Your task to perform on an android device: toggle pop-ups in chrome Image 0: 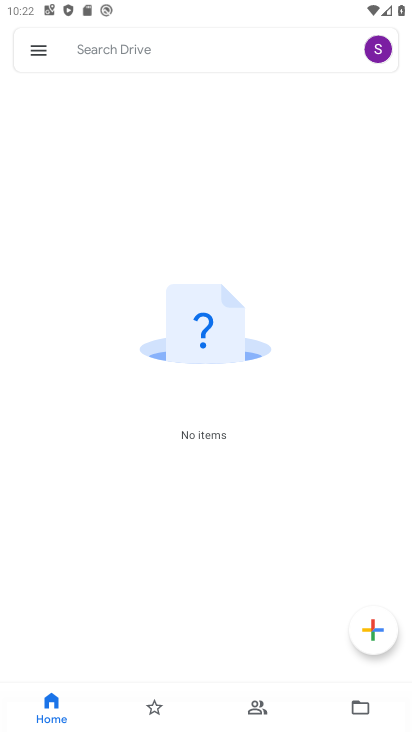
Step 0: press home button
Your task to perform on an android device: toggle pop-ups in chrome Image 1: 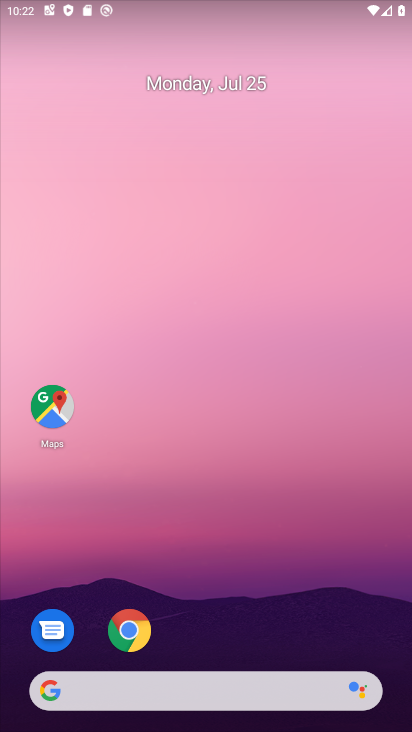
Step 1: drag from (336, 619) to (327, 240)
Your task to perform on an android device: toggle pop-ups in chrome Image 2: 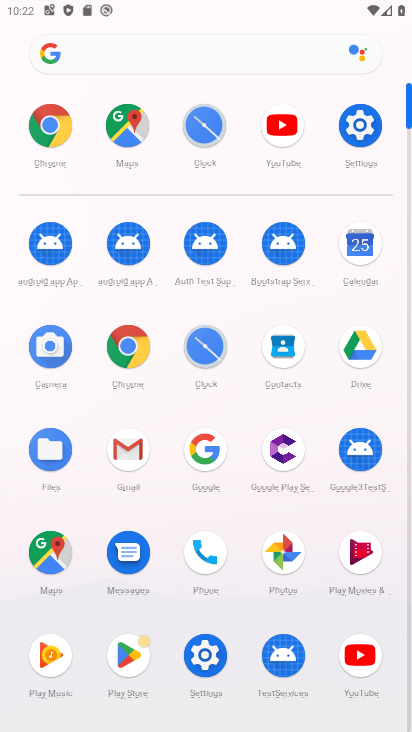
Step 2: click (136, 345)
Your task to perform on an android device: toggle pop-ups in chrome Image 3: 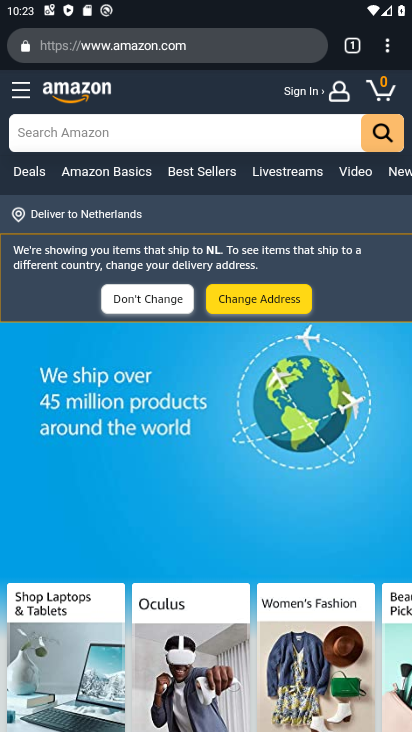
Step 3: click (387, 51)
Your task to perform on an android device: toggle pop-ups in chrome Image 4: 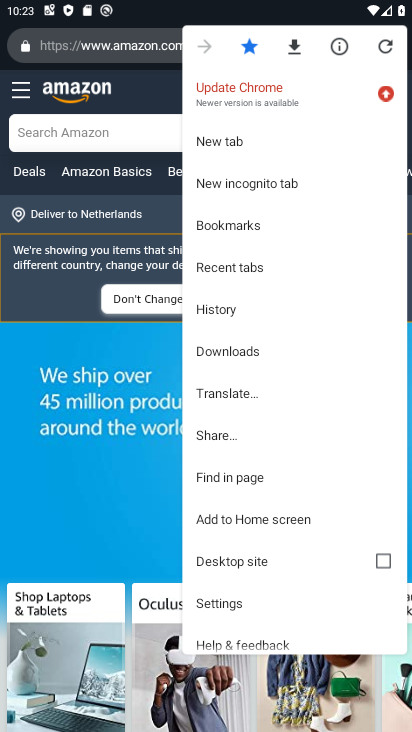
Step 4: drag from (340, 348) to (340, 274)
Your task to perform on an android device: toggle pop-ups in chrome Image 5: 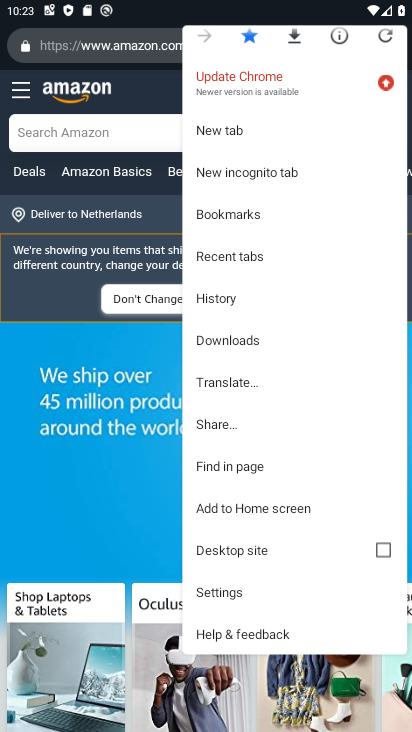
Step 5: click (277, 588)
Your task to perform on an android device: toggle pop-ups in chrome Image 6: 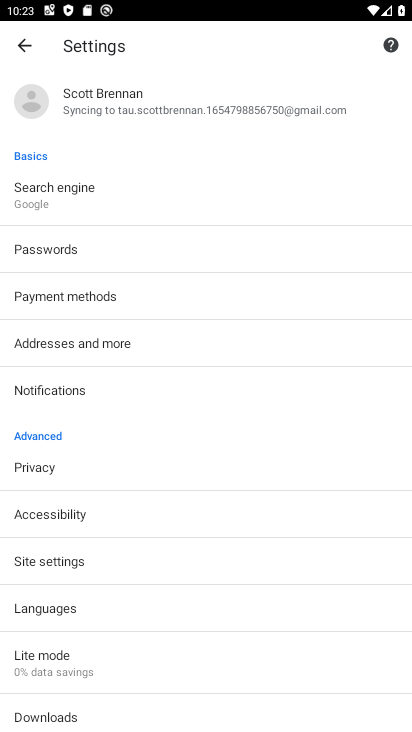
Step 6: drag from (236, 517) to (248, 424)
Your task to perform on an android device: toggle pop-ups in chrome Image 7: 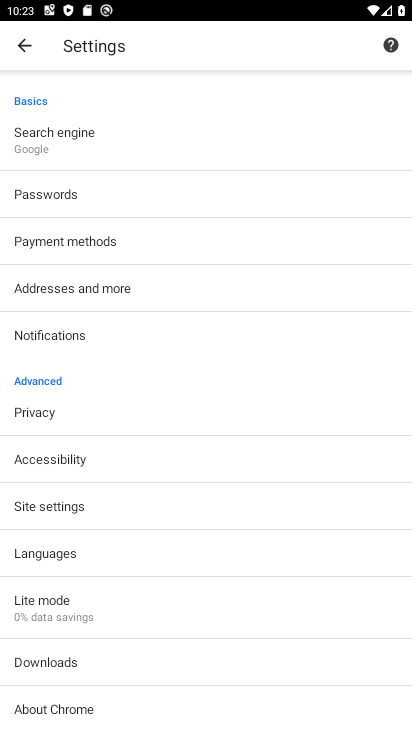
Step 7: drag from (256, 497) to (273, 350)
Your task to perform on an android device: toggle pop-ups in chrome Image 8: 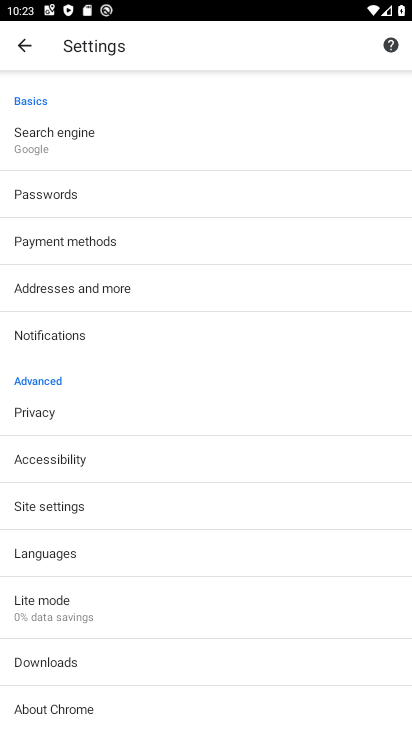
Step 8: click (254, 498)
Your task to perform on an android device: toggle pop-ups in chrome Image 9: 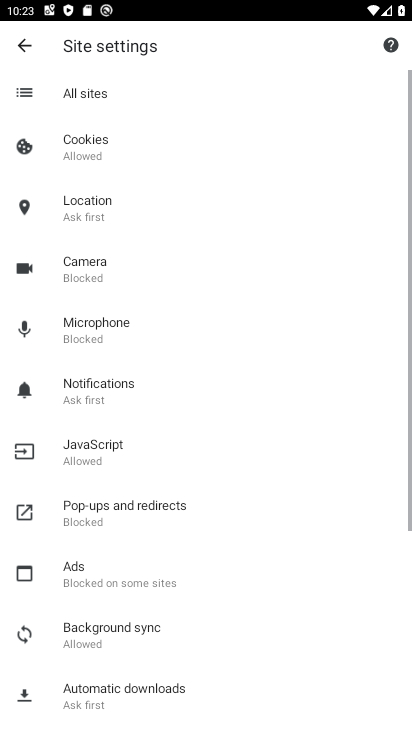
Step 9: drag from (324, 479) to (328, 358)
Your task to perform on an android device: toggle pop-ups in chrome Image 10: 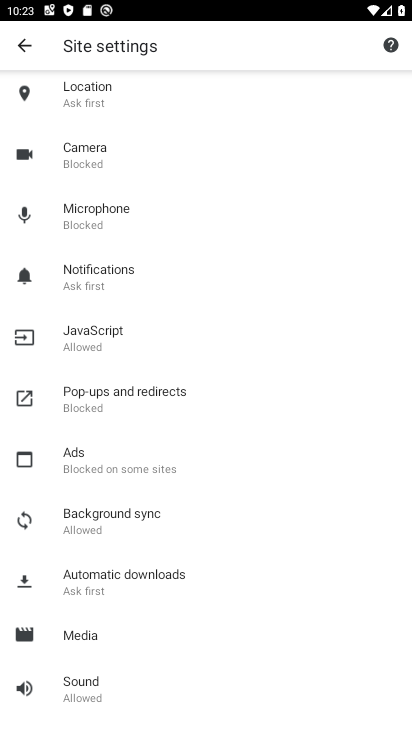
Step 10: drag from (322, 445) to (318, 350)
Your task to perform on an android device: toggle pop-ups in chrome Image 11: 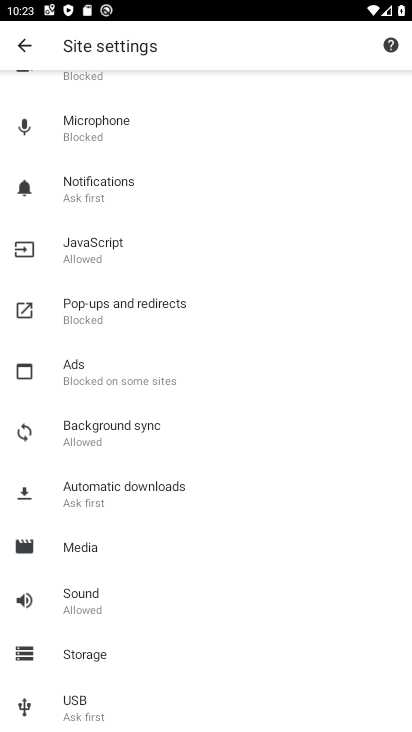
Step 11: drag from (319, 472) to (313, 354)
Your task to perform on an android device: toggle pop-ups in chrome Image 12: 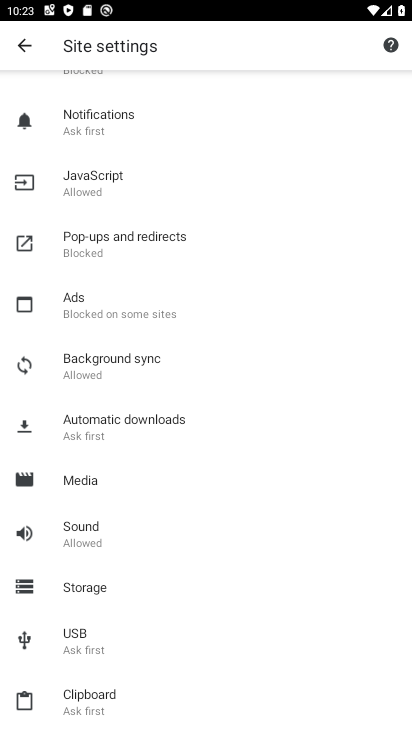
Step 12: drag from (281, 488) to (278, 362)
Your task to perform on an android device: toggle pop-ups in chrome Image 13: 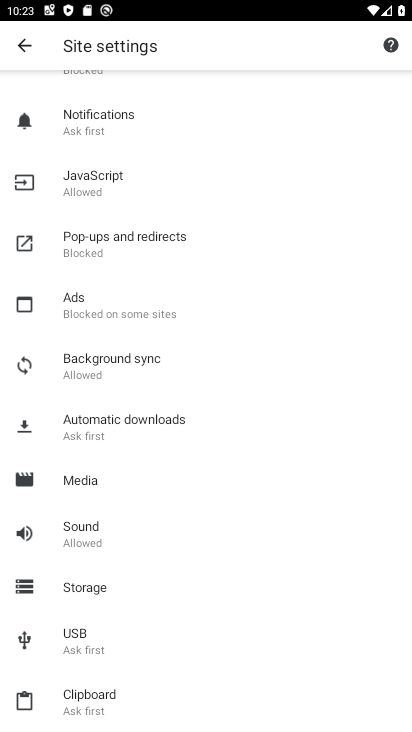
Step 13: click (186, 248)
Your task to perform on an android device: toggle pop-ups in chrome Image 14: 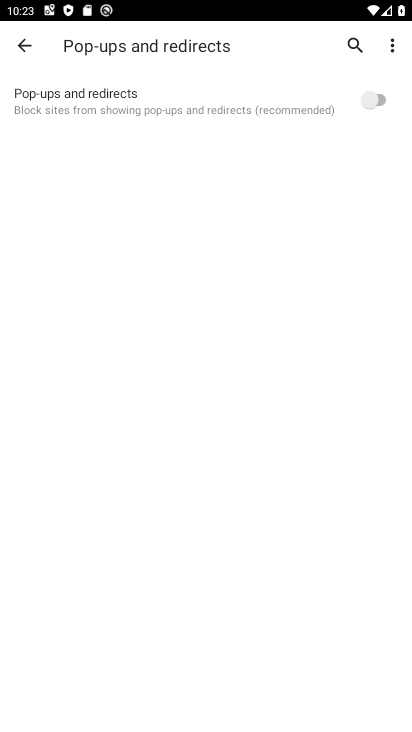
Step 14: click (371, 101)
Your task to perform on an android device: toggle pop-ups in chrome Image 15: 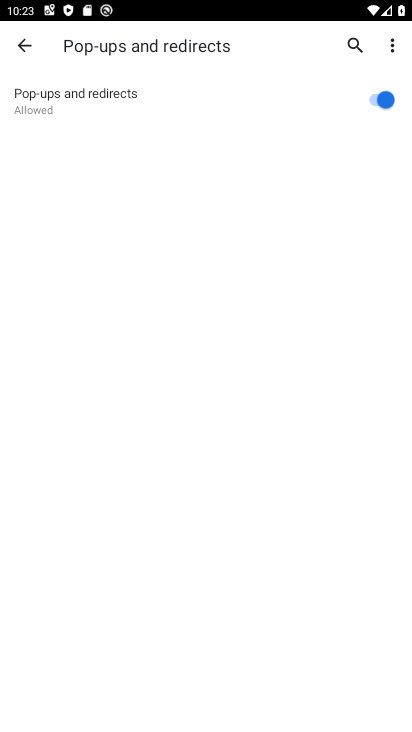
Step 15: task complete